Your task to perform on an android device: Search for sushi restaurants on Maps Image 0: 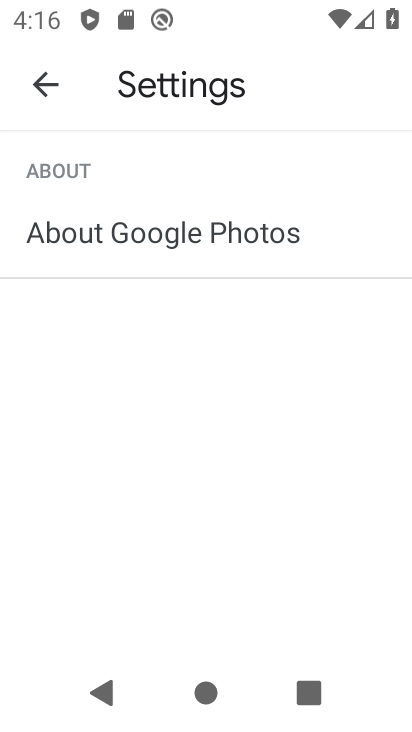
Step 0: press home button
Your task to perform on an android device: Search for sushi restaurants on Maps Image 1: 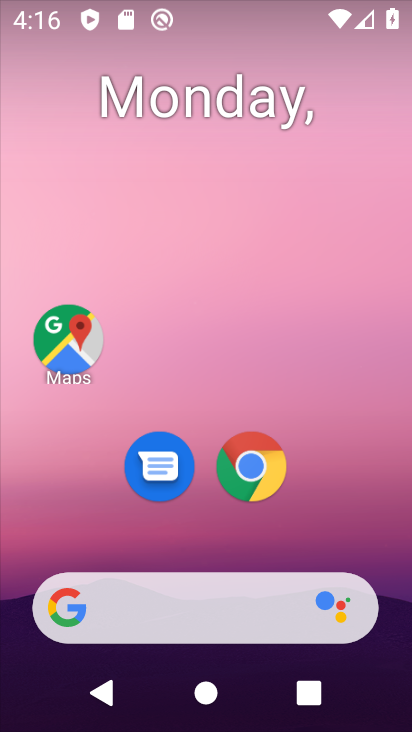
Step 1: drag from (339, 451) to (288, 19)
Your task to perform on an android device: Search for sushi restaurants on Maps Image 2: 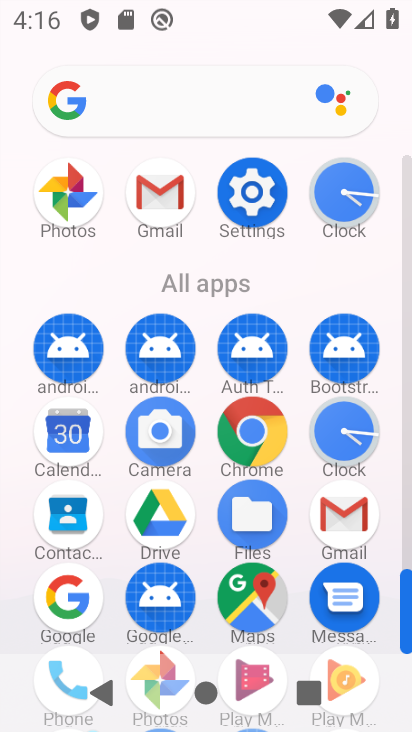
Step 2: drag from (306, 558) to (318, 261)
Your task to perform on an android device: Search for sushi restaurants on Maps Image 3: 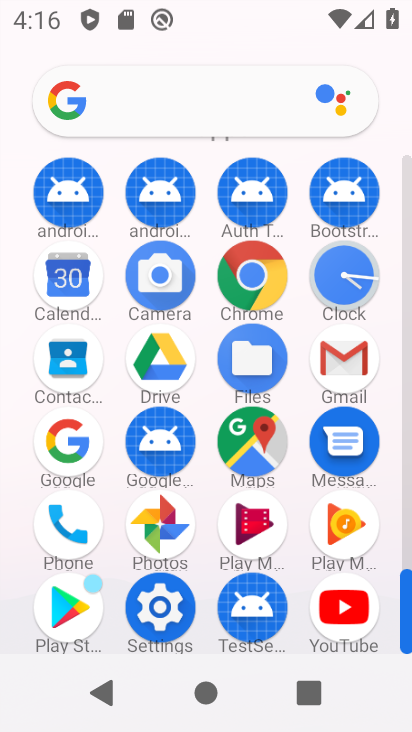
Step 3: click (254, 458)
Your task to perform on an android device: Search for sushi restaurants on Maps Image 4: 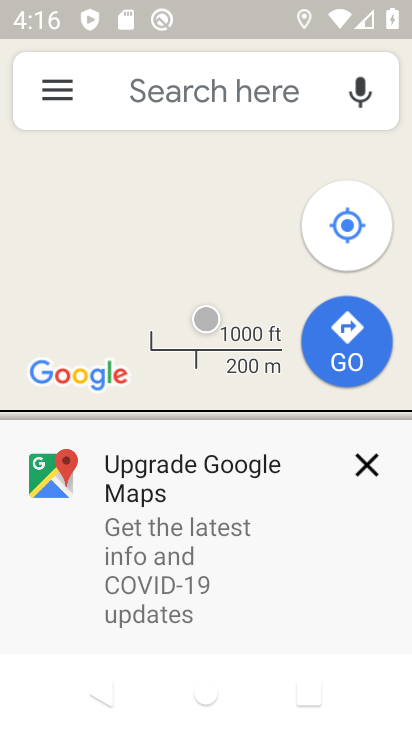
Step 4: click (228, 97)
Your task to perform on an android device: Search for sushi restaurants on Maps Image 5: 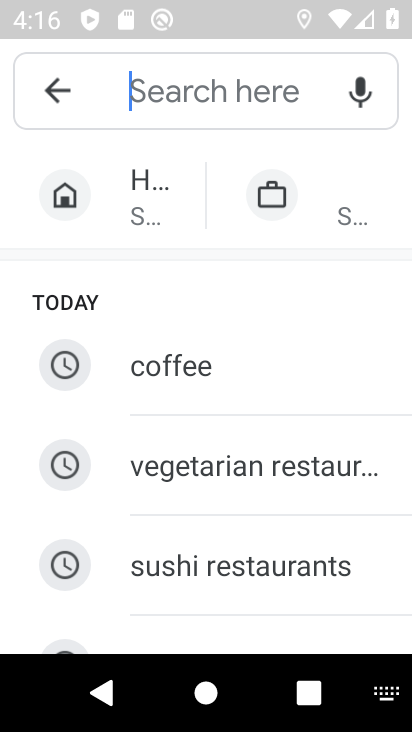
Step 5: click (308, 562)
Your task to perform on an android device: Search for sushi restaurants on Maps Image 6: 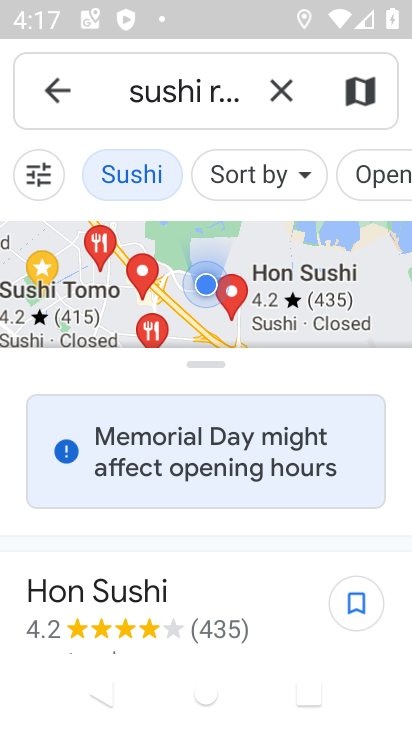
Step 6: task complete